Your task to perform on an android device: Open network settings Image 0: 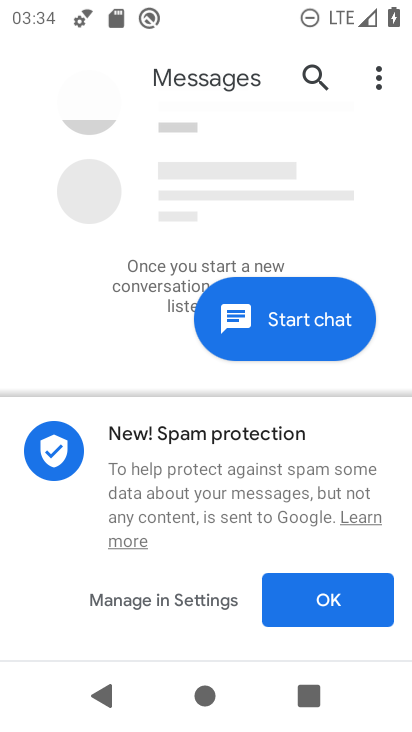
Step 0: press home button
Your task to perform on an android device: Open network settings Image 1: 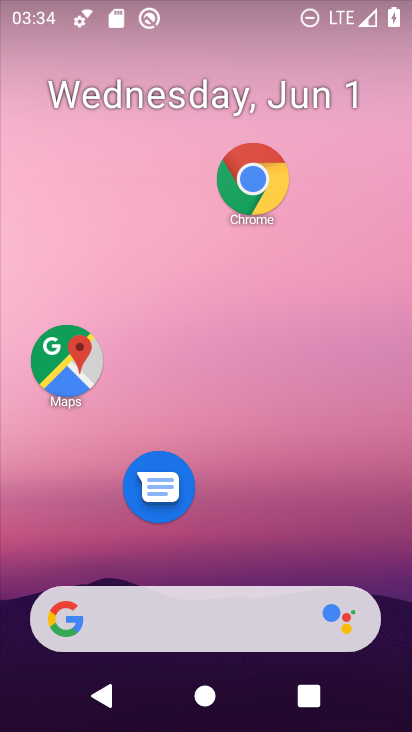
Step 1: drag from (253, 526) to (249, 241)
Your task to perform on an android device: Open network settings Image 2: 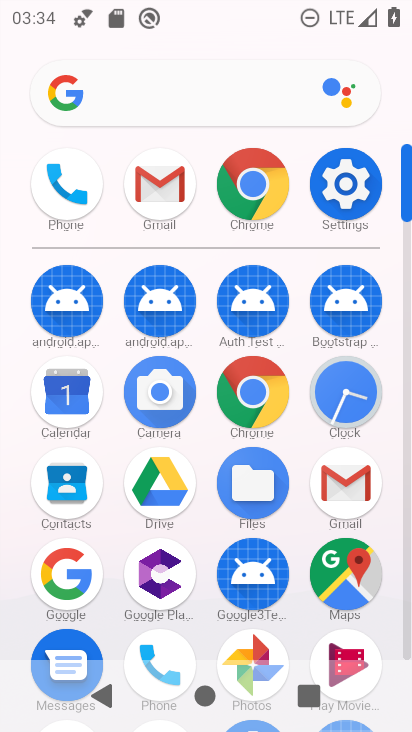
Step 2: click (376, 171)
Your task to perform on an android device: Open network settings Image 3: 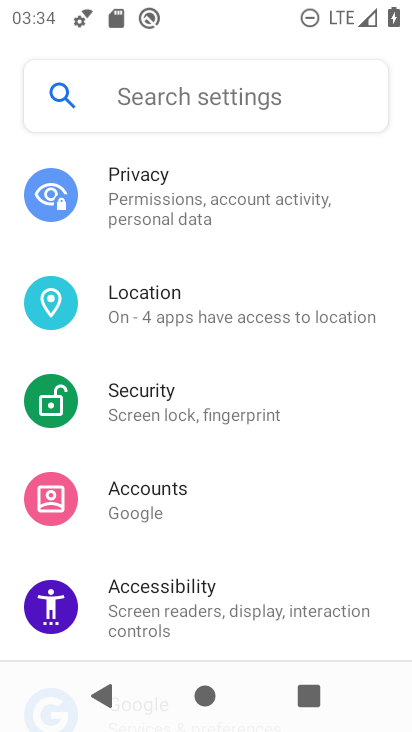
Step 3: drag from (186, 197) to (206, 246)
Your task to perform on an android device: Open network settings Image 4: 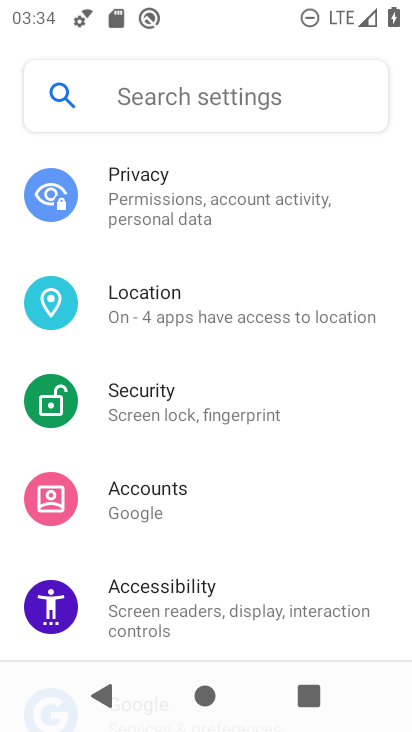
Step 4: drag from (199, 286) to (233, 410)
Your task to perform on an android device: Open network settings Image 5: 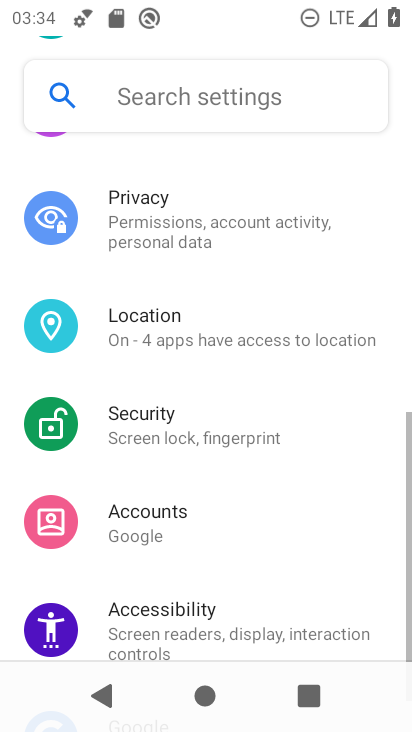
Step 5: click (166, 140)
Your task to perform on an android device: Open network settings Image 6: 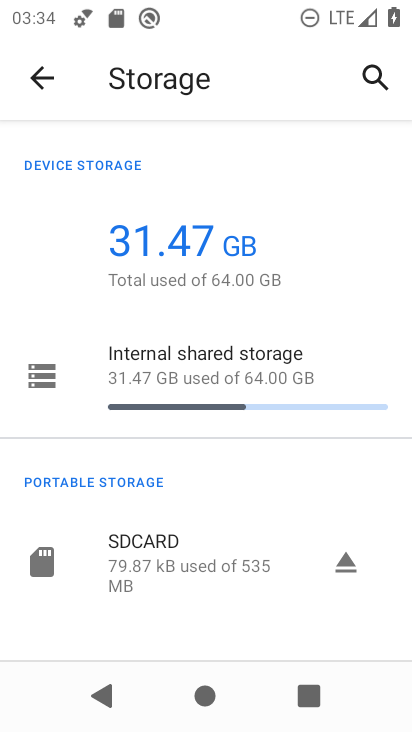
Step 6: click (70, 71)
Your task to perform on an android device: Open network settings Image 7: 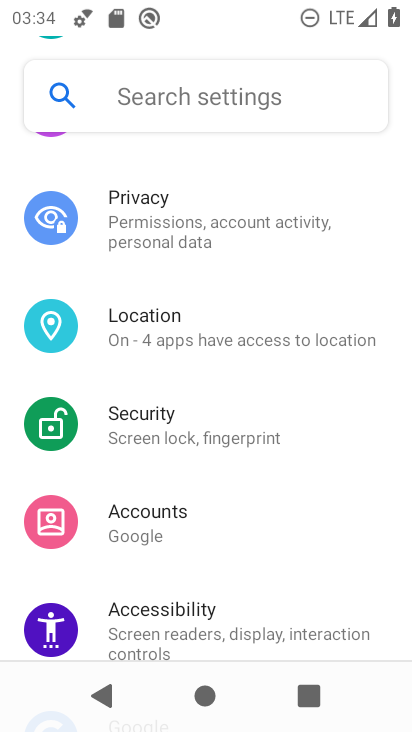
Step 7: drag from (179, 248) to (219, 615)
Your task to perform on an android device: Open network settings Image 8: 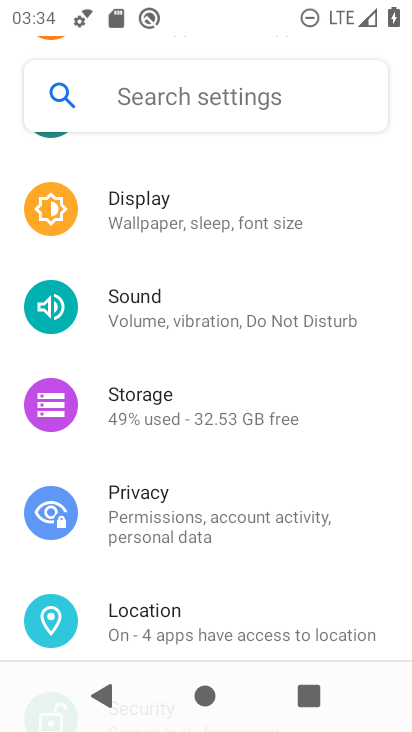
Step 8: drag from (185, 193) to (209, 534)
Your task to perform on an android device: Open network settings Image 9: 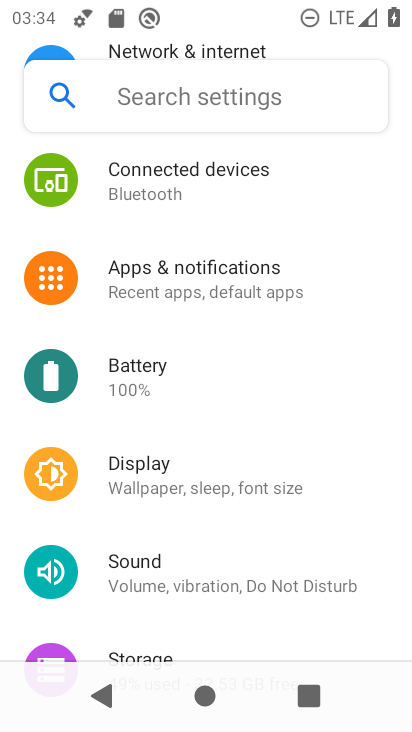
Step 9: drag from (184, 217) to (222, 500)
Your task to perform on an android device: Open network settings Image 10: 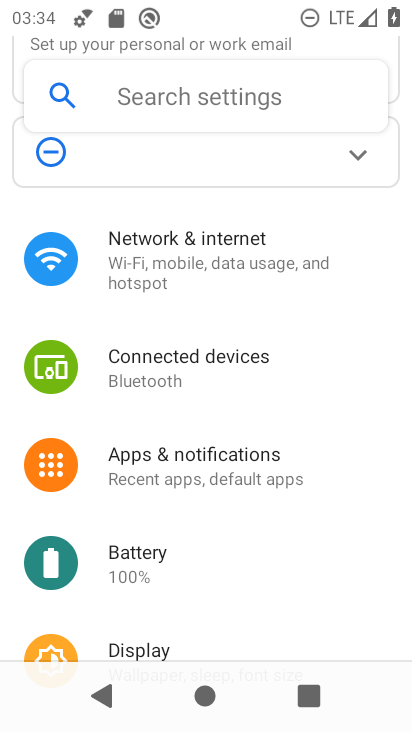
Step 10: click (170, 216)
Your task to perform on an android device: Open network settings Image 11: 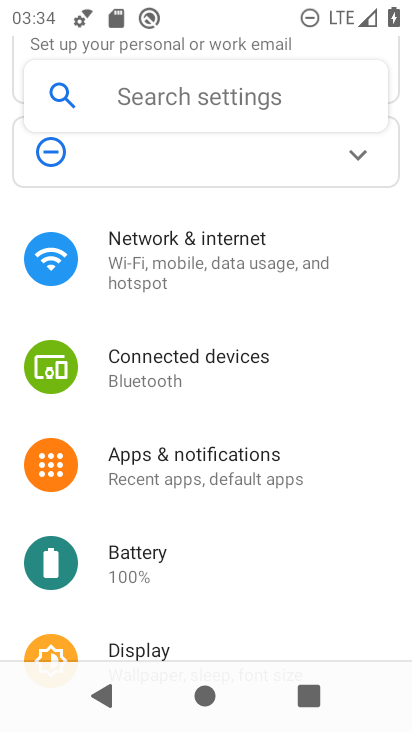
Step 11: click (136, 269)
Your task to perform on an android device: Open network settings Image 12: 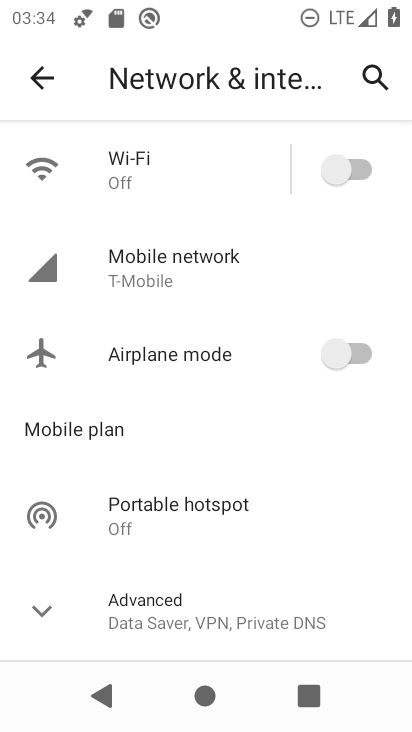
Step 12: task complete